Your task to perform on an android device: delete the emails in spam in the gmail app Image 0: 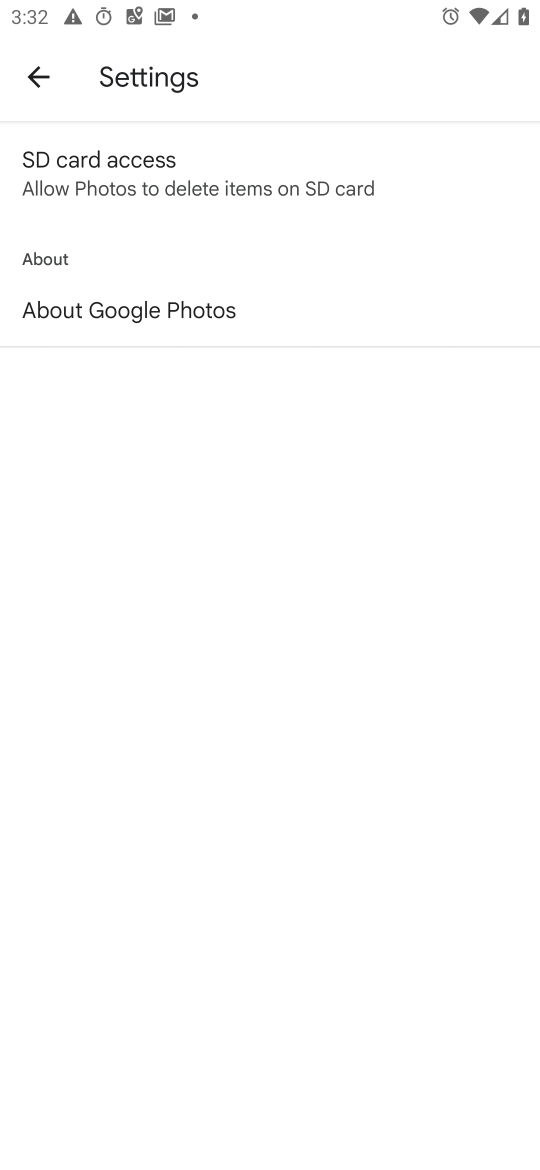
Step 0: press home button
Your task to perform on an android device: delete the emails in spam in the gmail app Image 1: 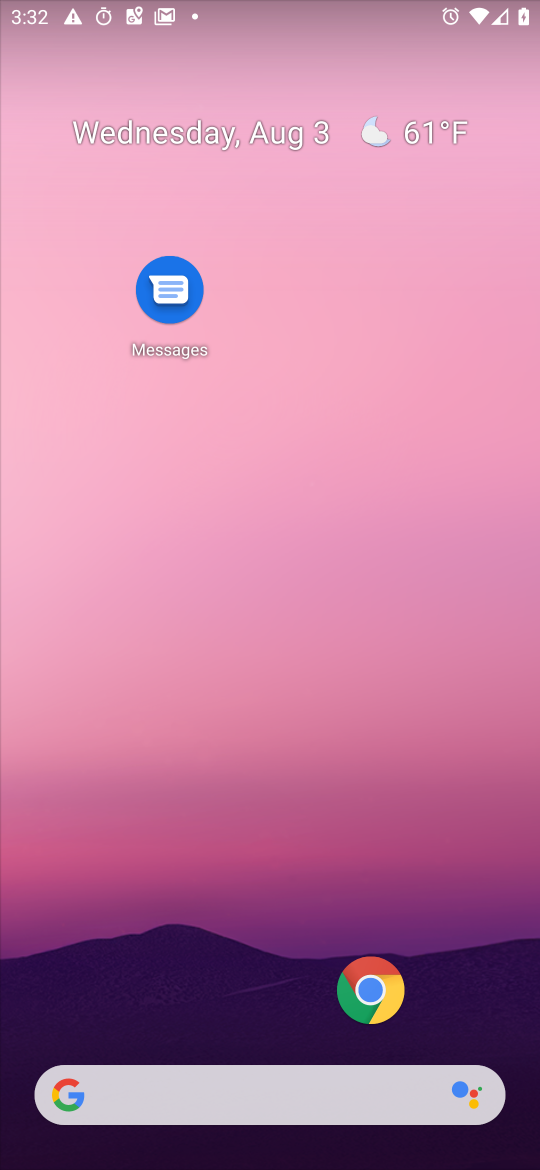
Step 1: drag from (305, 1048) to (287, 279)
Your task to perform on an android device: delete the emails in spam in the gmail app Image 2: 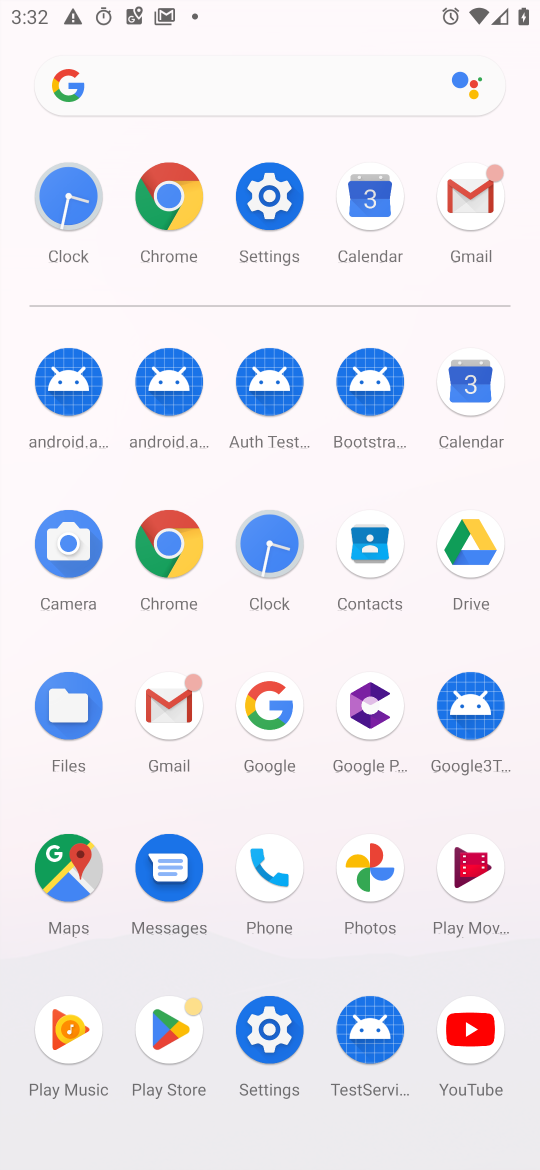
Step 2: click (172, 709)
Your task to perform on an android device: delete the emails in spam in the gmail app Image 3: 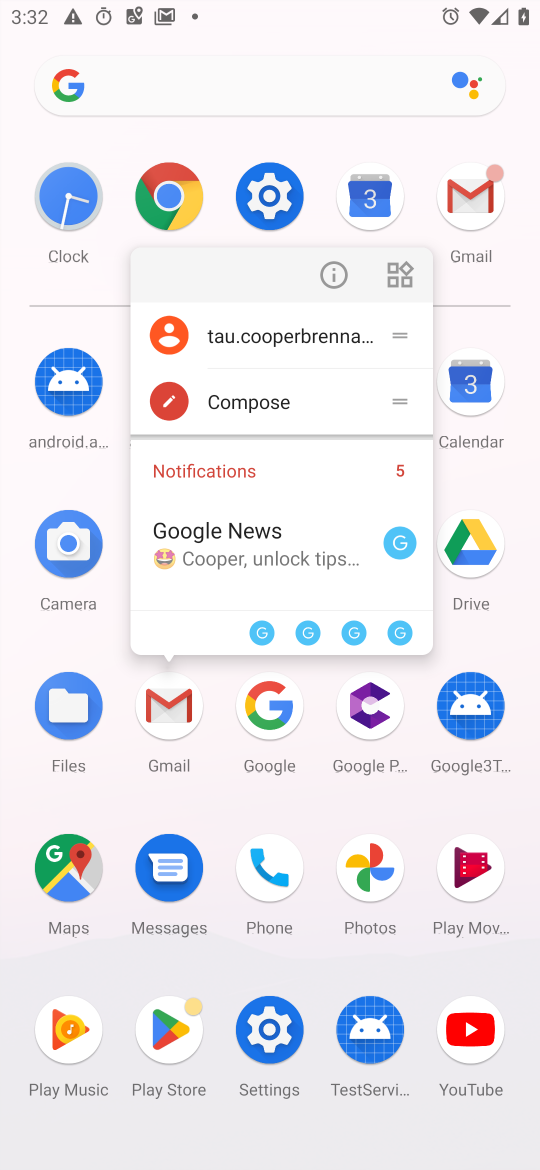
Step 3: click (172, 709)
Your task to perform on an android device: delete the emails in spam in the gmail app Image 4: 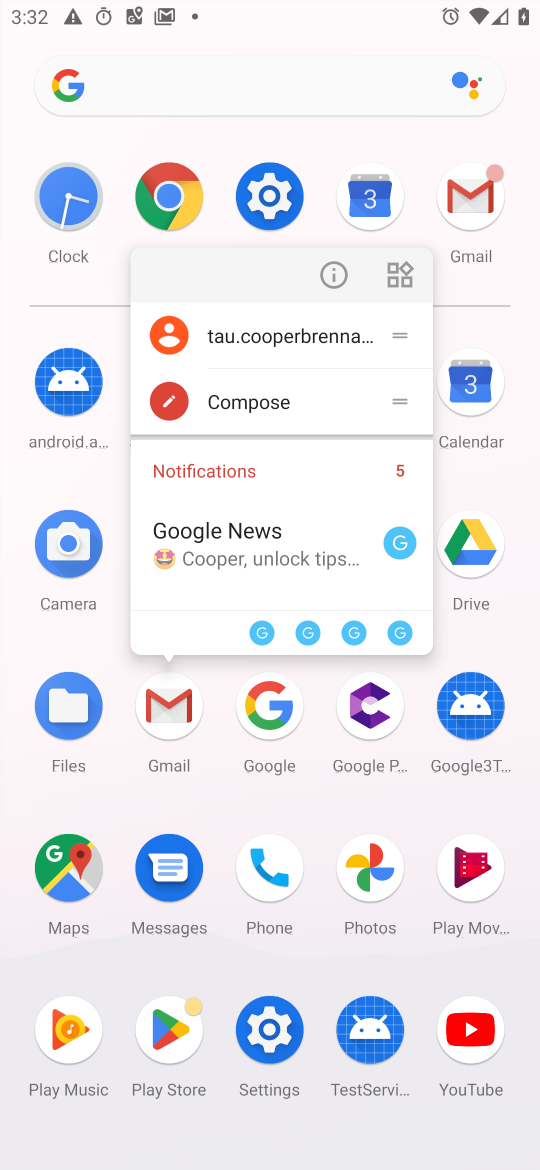
Step 4: click (155, 711)
Your task to perform on an android device: delete the emails in spam in the gmail app Image 5: 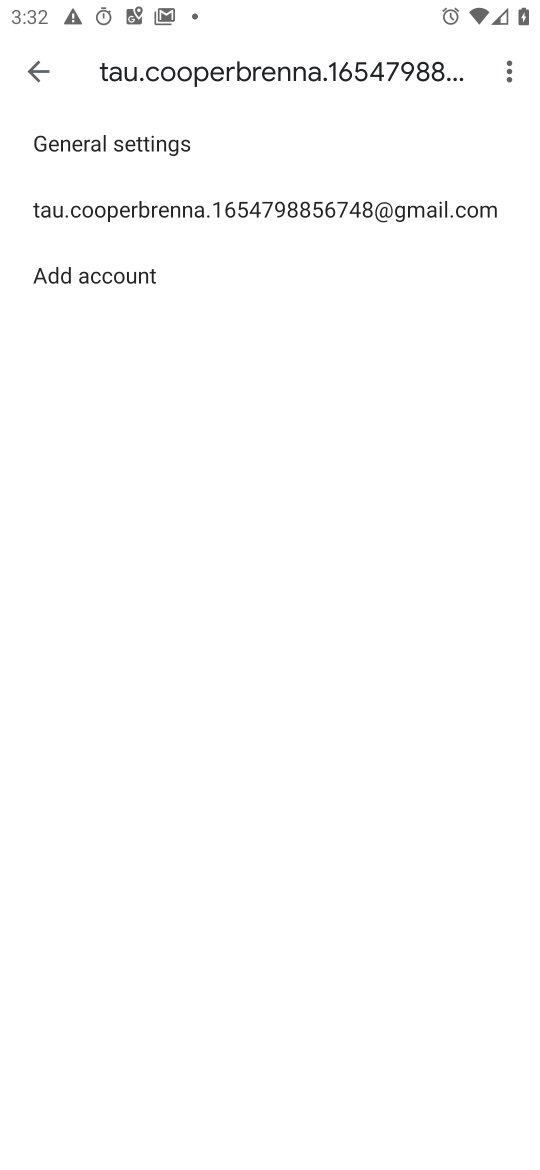
Step 5: click (38, 65)
Your task to perform on an android device: delete the emails in spam in the gmail app Image 6: 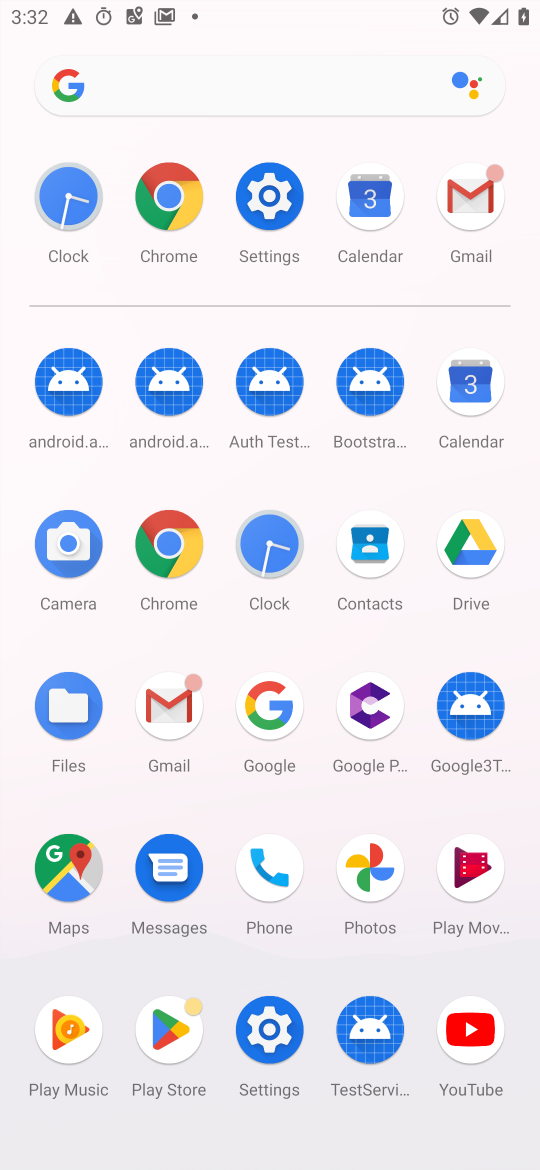
Step 6: click (439, 216)
Your task to perform on an android device: delete the emails in spam in the gmail app Image 7: 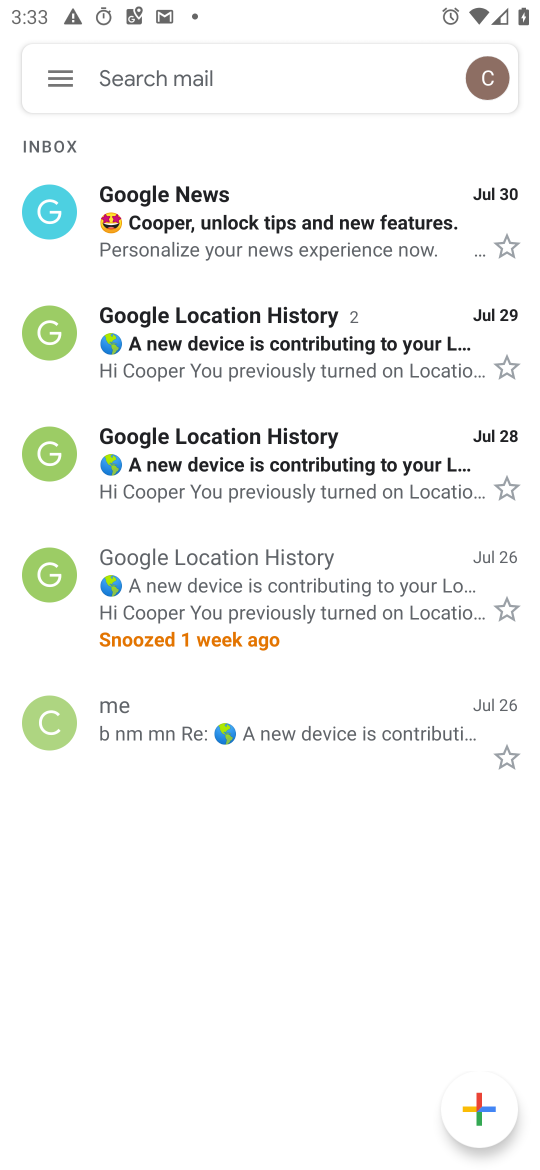
Step 7: click (51, 88)
Your task to perform on an android device: delete the emails in spam in the gmail app Image 8: 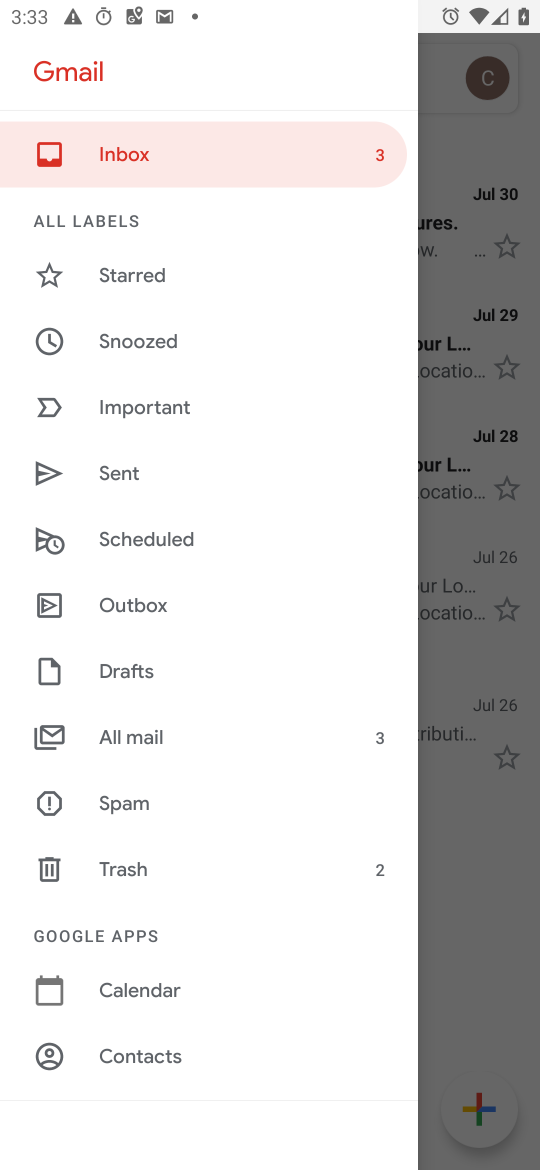
Step 8: click (137, 800)
Your task to perform on an android device: delete the emails in spam in the gmail app Image 9: 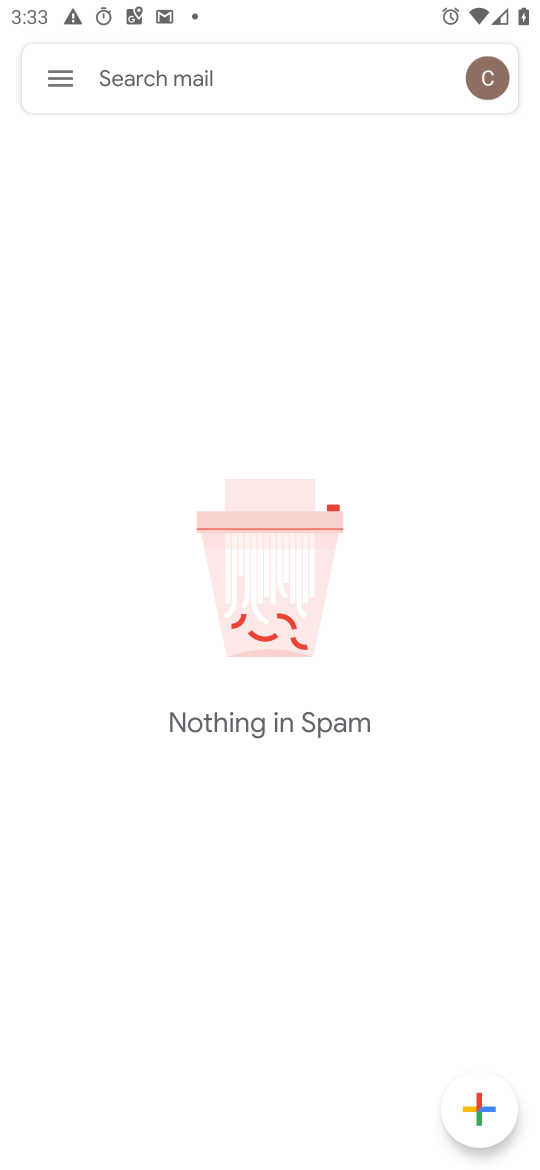
Step 9: task complete